Your task to perform on an android device: When is my next meeting? Image 0: 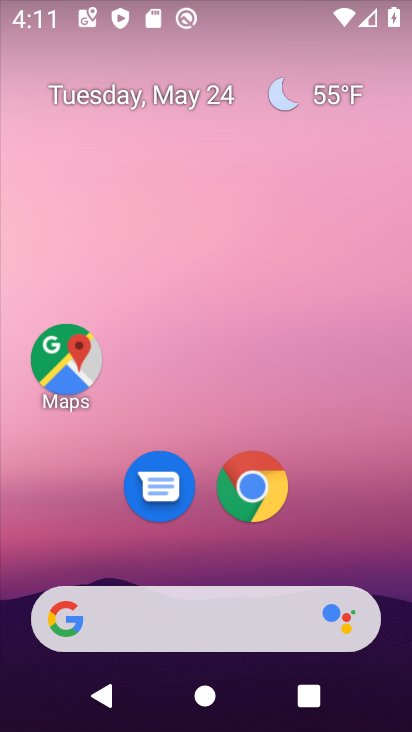
Step 0: drag from (301, 581) to (284, 13)
Your task to perform on an android device: When is my next meeting? Image 1: 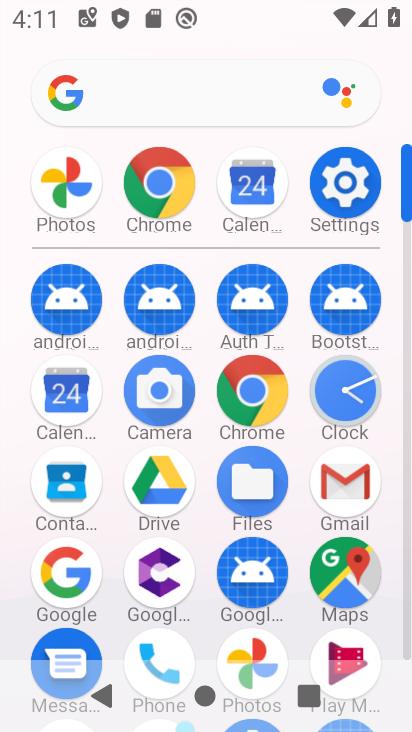
Step 1: click (251, 190)
Your task to perform on an android device: When is my next meeting? Image 2: 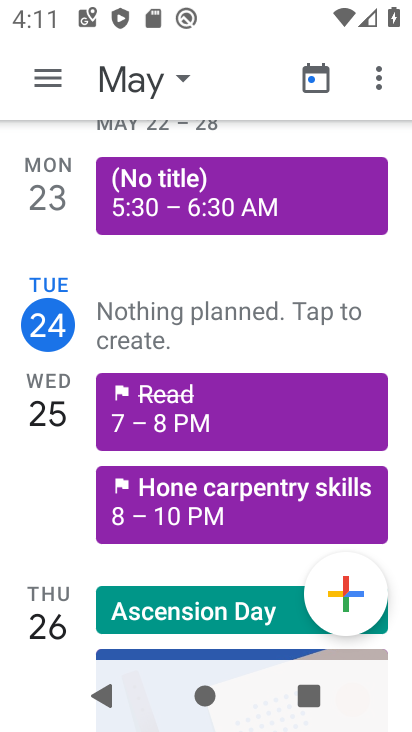
Step 2: task complete